Your task to perform on an android device: Open Google Maps Image 0: 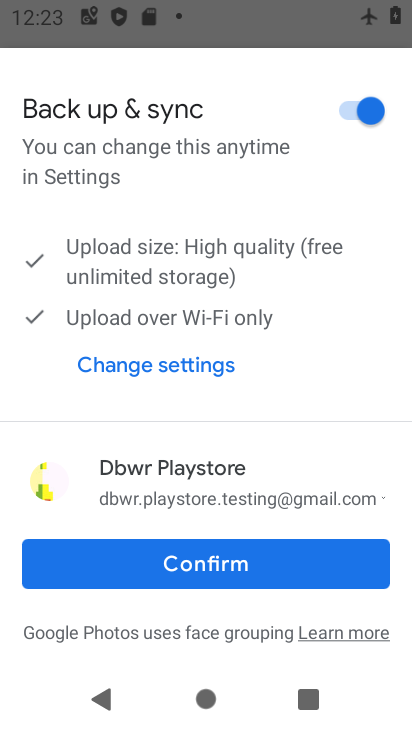
Step 0: press home button
Your task to perform on an android device: Open Google Maps Image 1: 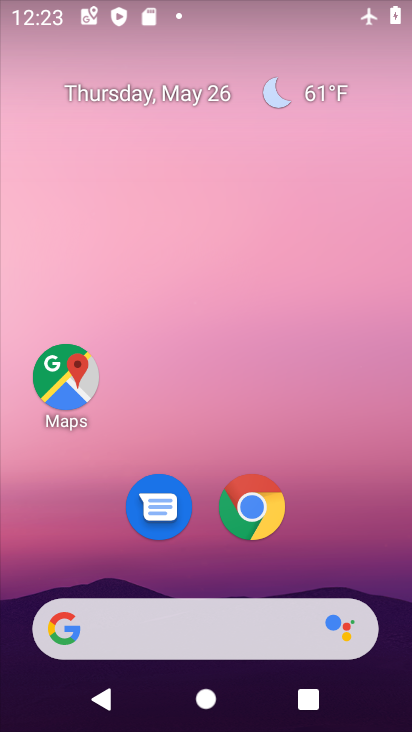
Step 1: click (34, 376)
Your task to perform on an android device: Open Google Maps Image 2: 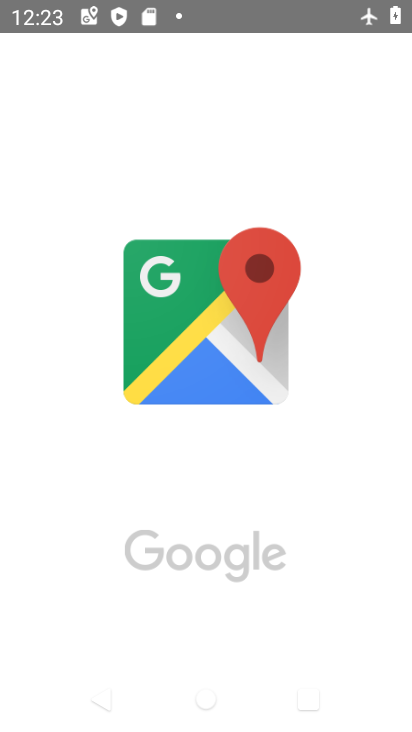
Step 2: task complete